Your task to perform on an android device: change alarm snooze length Image 0: 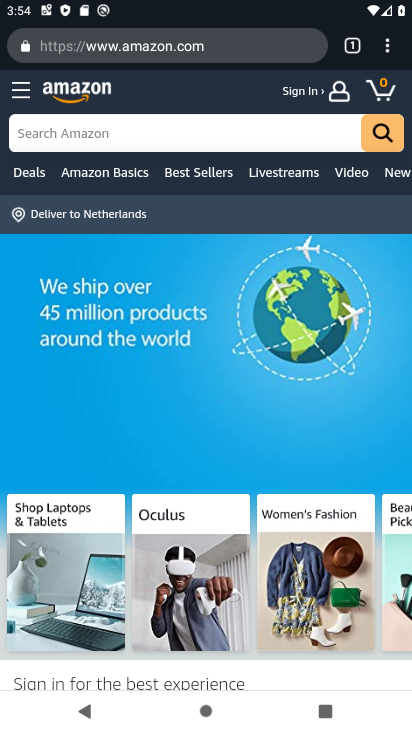
Step 0: press home button
Your task to perform on an android device: change alarm snooze length Image 1: 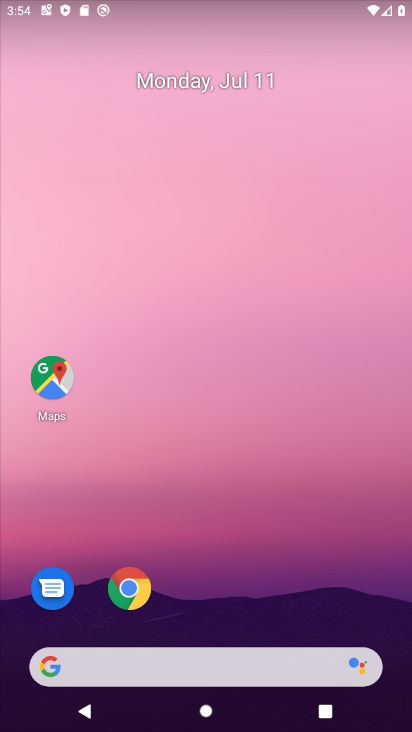
Step 1: drag from (346, 622) to (351, 149)
Your task to perform on an android device: change alarm snooze length Image 2: 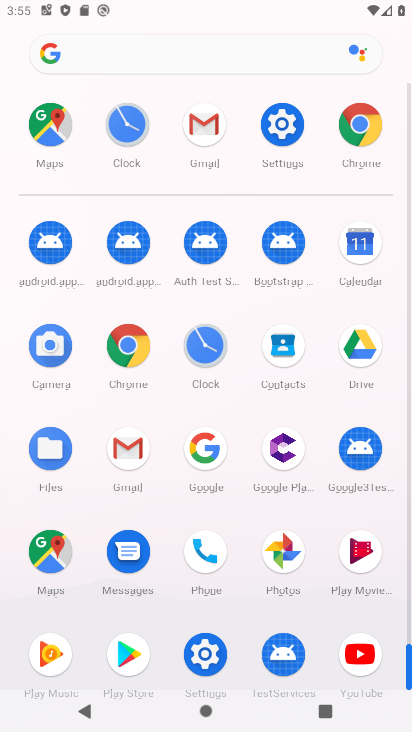
Step 2: click (209, 350)
Your task to perform on an android device: change alarm snooze length Image 3: 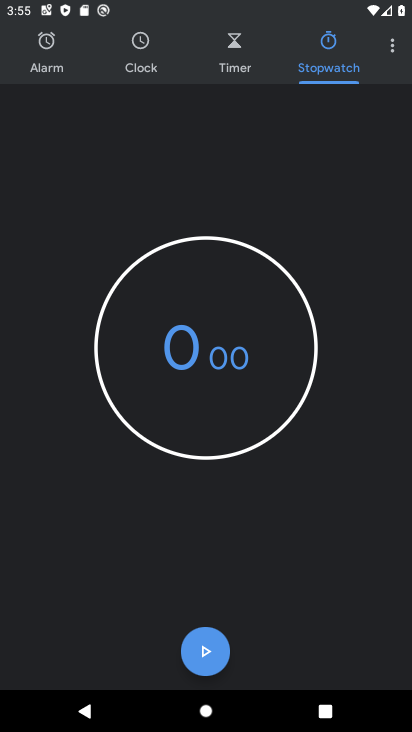
Step 3: click (390, 54)
Your task to perform on an android device: change alarm snooze length Image 4: 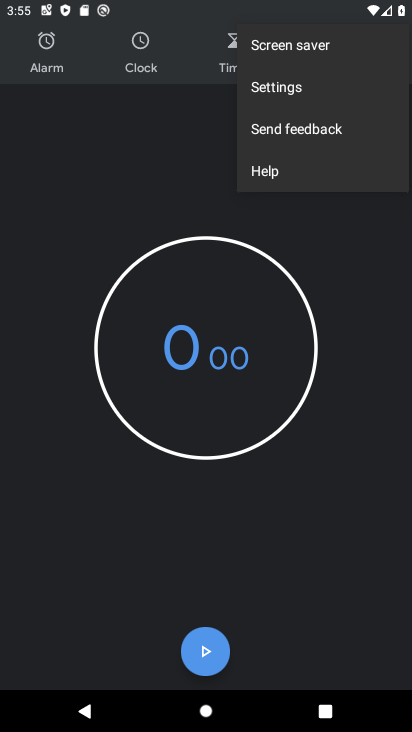
Step 4: click (312, 87)
Your task to perform on an android device: change alarm snooze length Image 5: 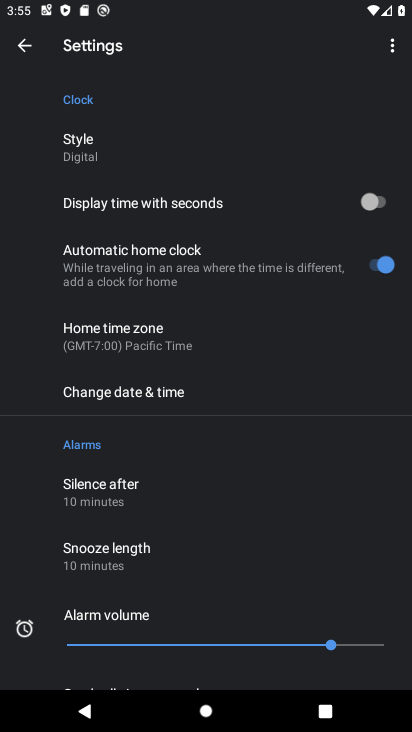
Step 5: drag from (290, 465) to (282, 256)
Your task to perform on an android device: change alarm snooze length Image 6: 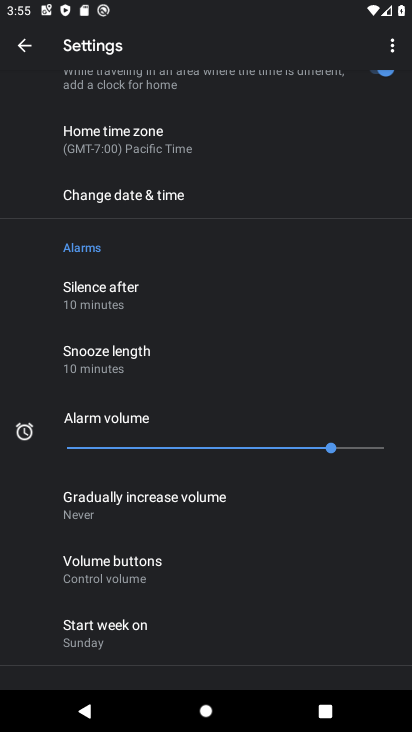
Step 6: drag from (278, 538) to (283, 397)
Your task to perform on an android device: change alarm snooze length Image 7: 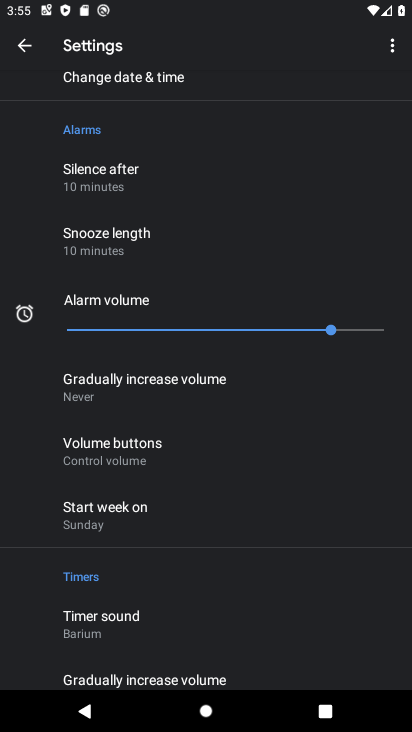
Step 7: drag from (272, 535) to (276, 382)
Your task to perform on an android device: change alarm snooze length Image 8: 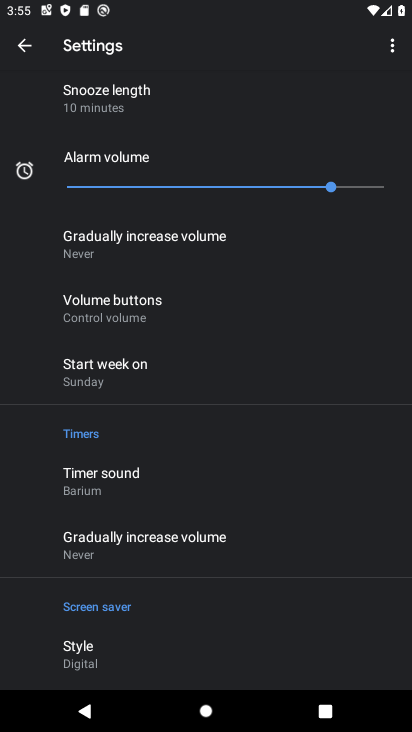
Step 8: drag from (287, 549) to (287, 441)
Your task to perform on an android device: change alarm snooze length Image 9: 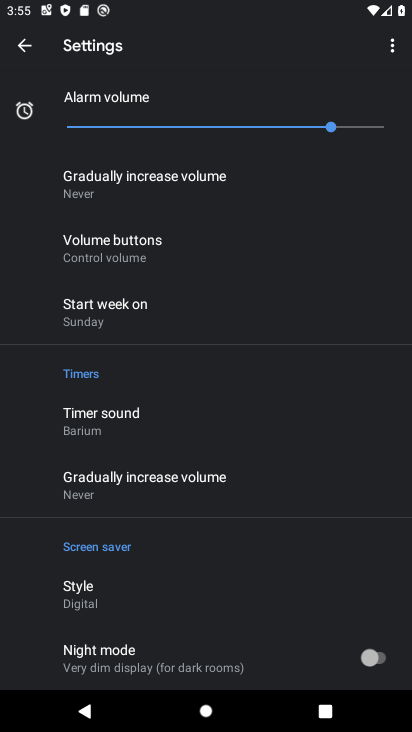
Step 9: drag from (284, 553) to (283, 412)
Your task to perform on an android device: change alarm snooze length Image 10: 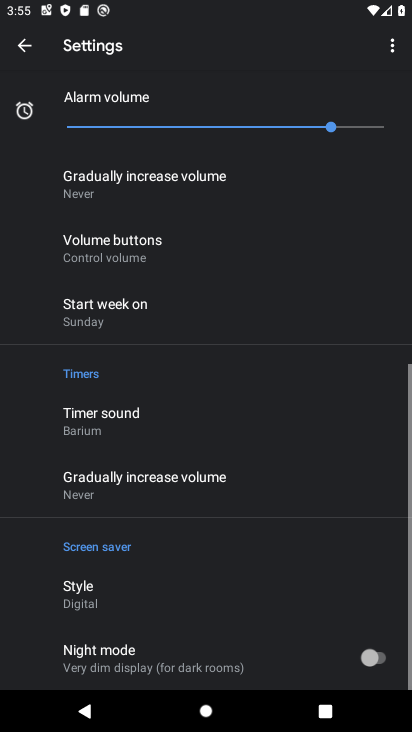
Step 10: drag from (288, 354) to (292, 487)
Your task to perform on an android device: change alarm snooze length Image 11: 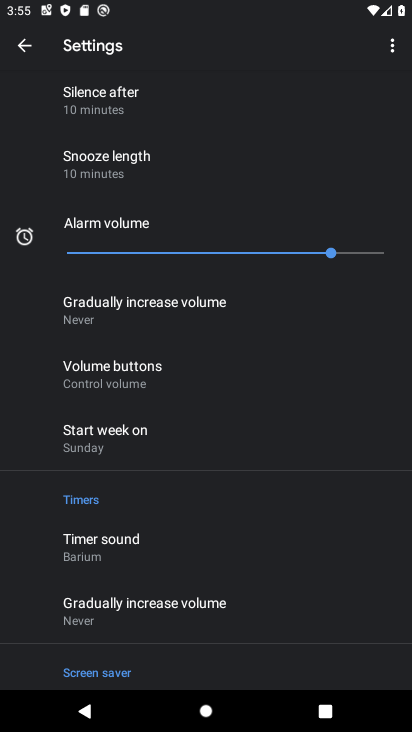
Step 11: drag from (284, 303) to (285, 416)
Your task to perform on an android device: change alarm snooze length Image 12: 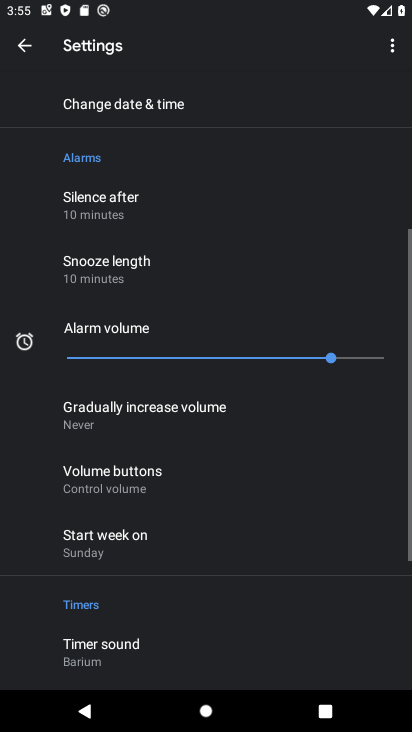
Step 12: drag from (298, 256) to (283, 396)
Your task to perform on an android device: change alarm snooze length Image 13: 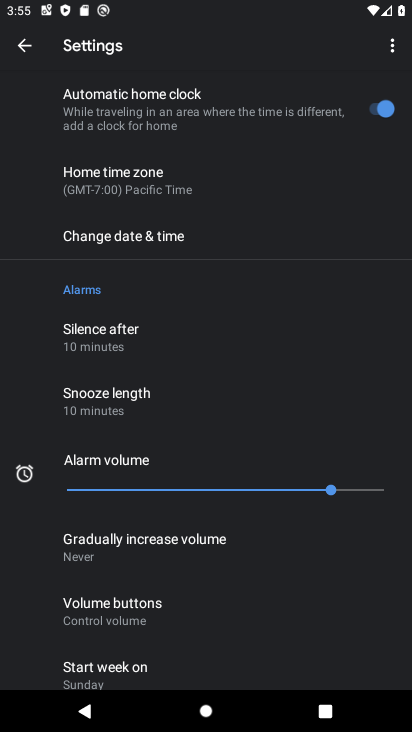
Step 13: click (159, 416)
Your task to perform on an android device: change alarm snooze length Image 14: 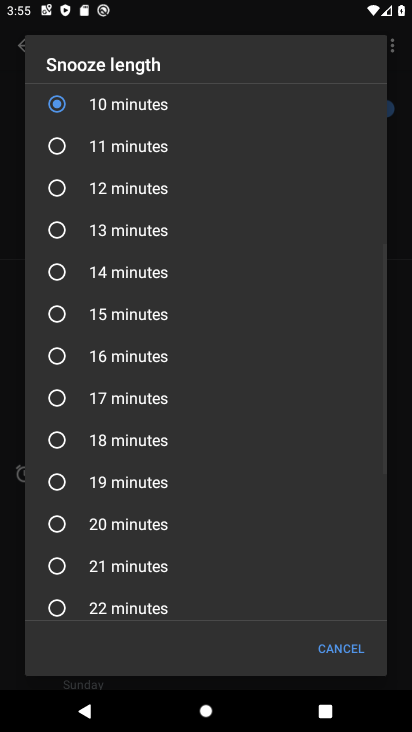
Step 14: click (151, 441)
Your task to perform on an android device: change alarm snooze length Image 15: 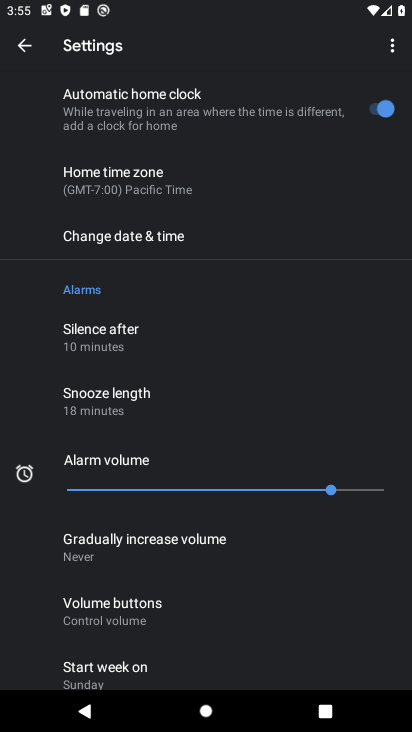
Step 15: task complete